Your task to perform on an android device: Open CNN.com Image 0: 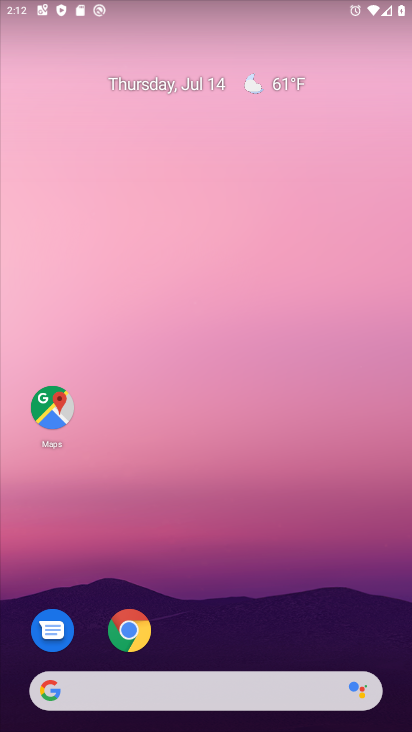
Step 0: press home button
Your task to perform on an android device: Open CNN.com Image 1: 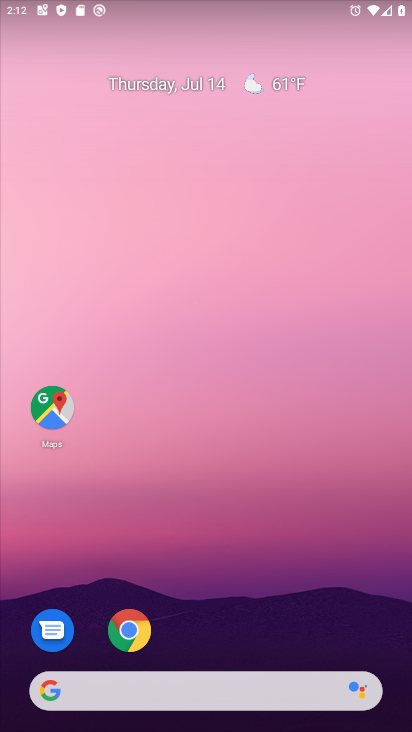
Step 1: click (131, 628)
Your task to perform on an android device: Open CNN.com Image 2: 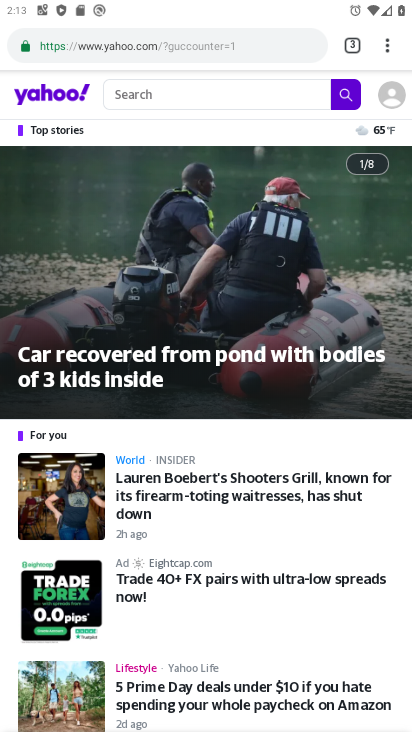
Step 2: drag from (386, 42) to (269, 140)
Your task to perform on an android device: Open CNN.com Image 3: 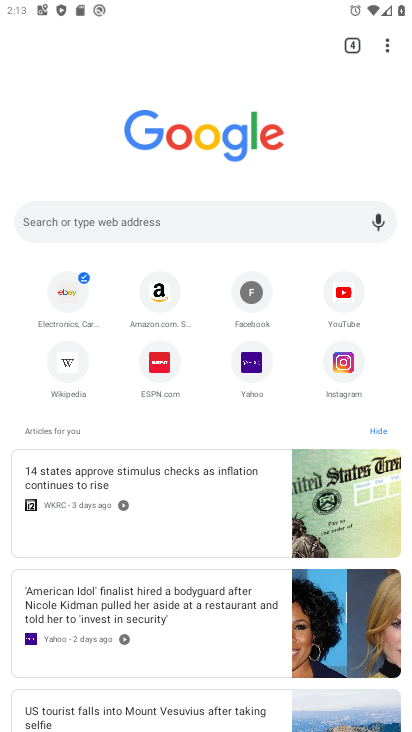
Step 3: click (71, 216)
Your task to perform on an android device: Open CNN.com Image 4: 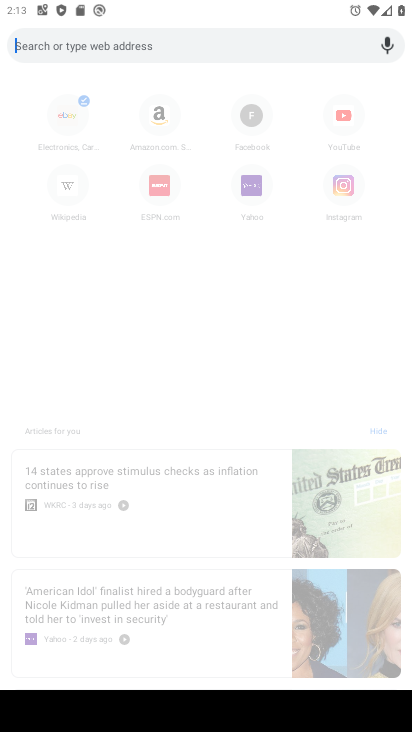
Step 4: type "cnn.com"
Your task to perform on an android device: Open CNN.com Image 5: 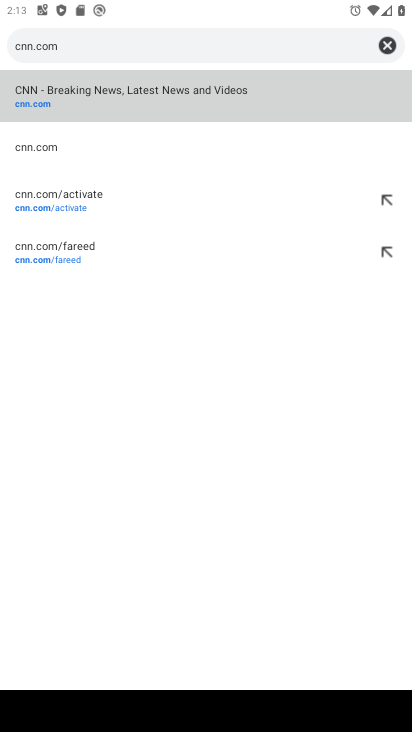
Step 5: click (126, 98)
Your task to perform on an android device: Open CNN.com Image 6: 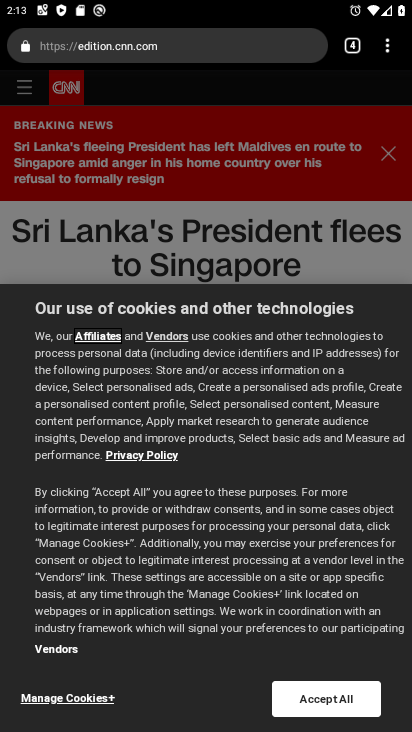
Step 6: click (344, 704)
Your task to perform on an android device: Open CNN.com Image 7: 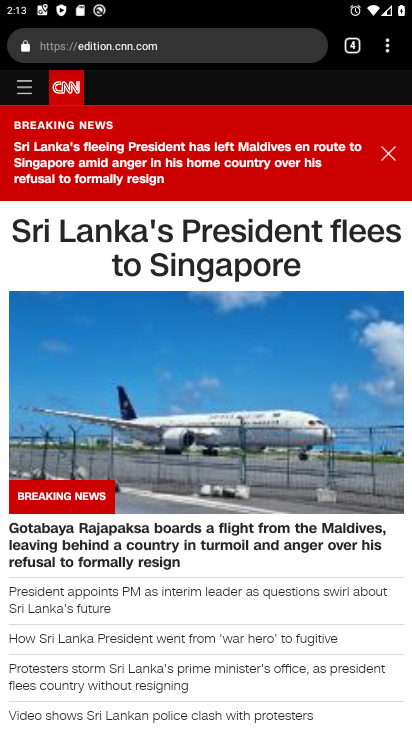
Step 7: task complete